Your task to perform on an android device: What's the weather? Image 0: 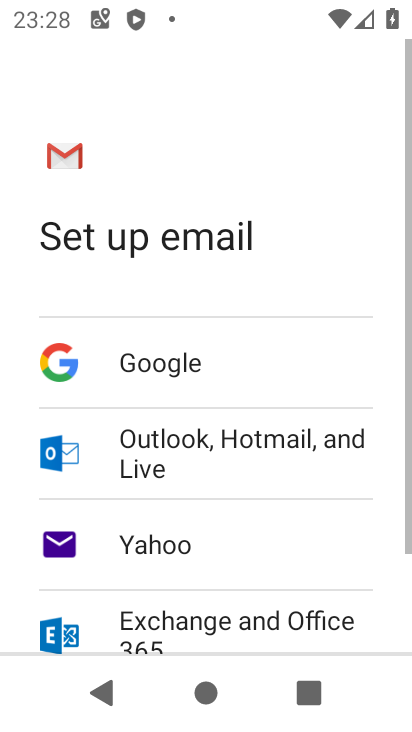
Step 0: press home button
Your task to perform on an android device: What's the weather? Image 1: 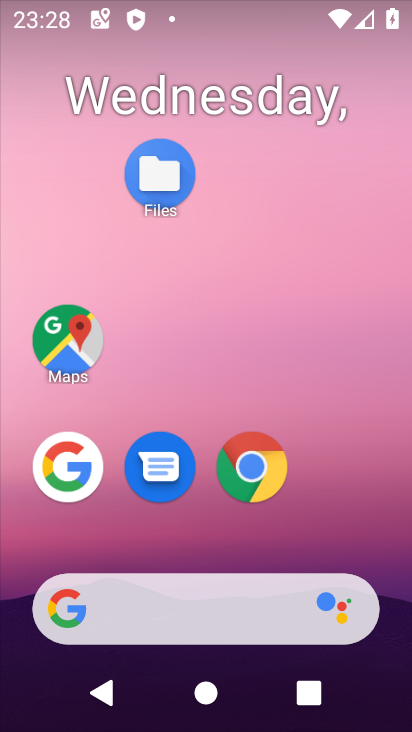
Step 1: click (202, 587)
Your task to perform on an android device: What's the weather? Image 2: 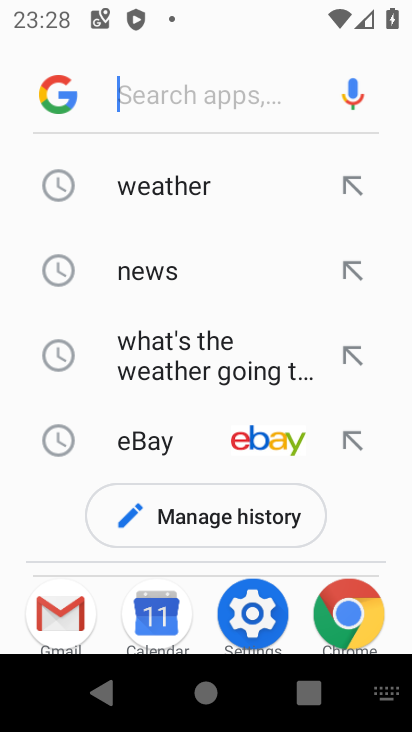
Step 2: click (141, 189)
Your task to perform on an android device: What's the weather? Image 3: 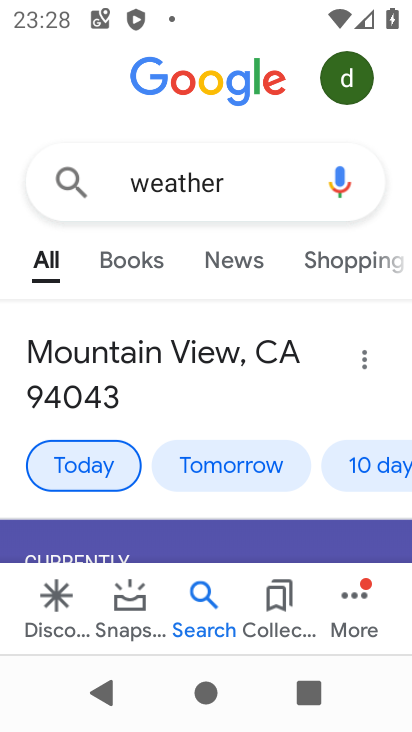
Step 3: task complete